Your task to perform on an android device: Open Chrome and go to settings Image 0: 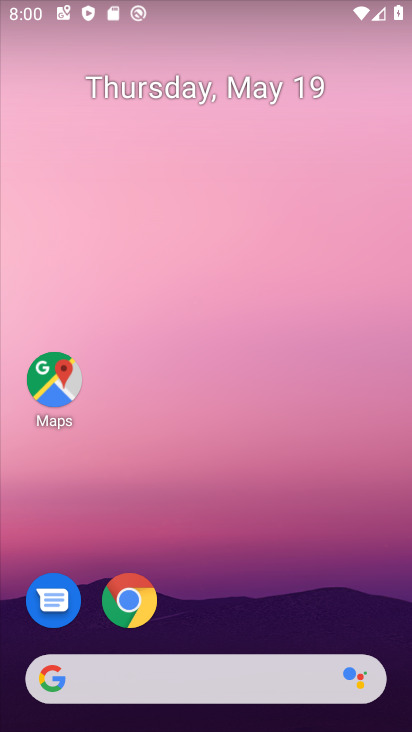
Step 0: click (128, 607)
Your task to perform on an android device: Open Chrome and go to settings Image 1: 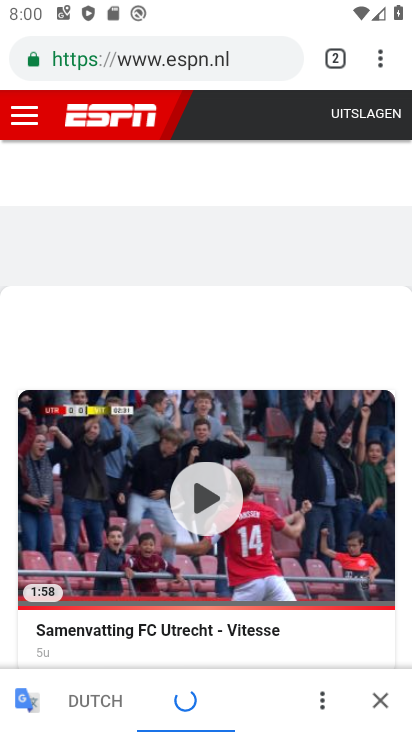
Step 1: click (377, 60)
Your task to perform on an android device: Open Chrome and go to settings Image 2: 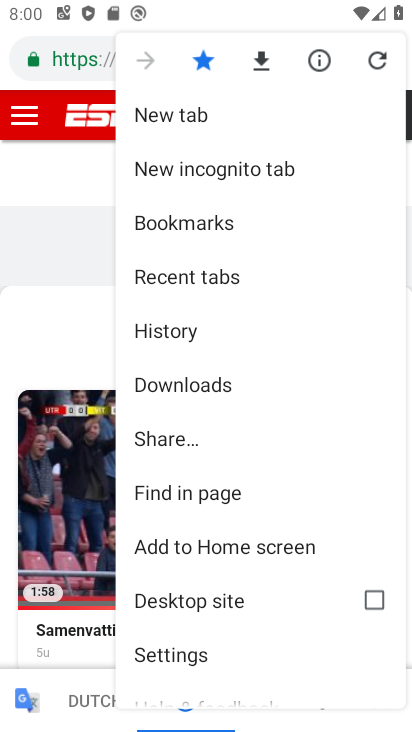
Step 2: click (152, 650)
Your task to perform on an android device: Open Chrome and go to settings Image 3: 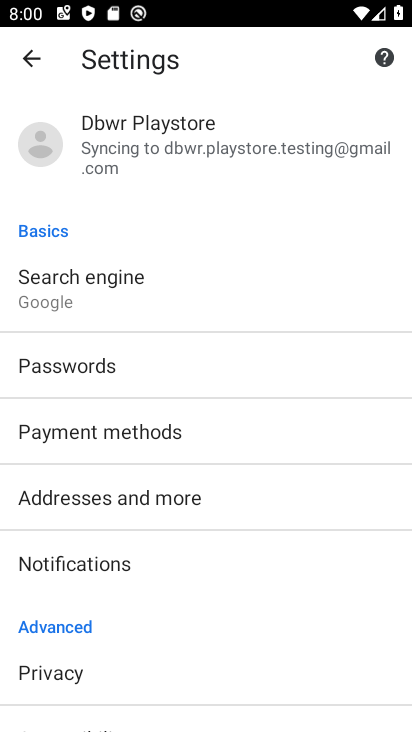
Step 3: task complete